Your task to perform on an android device: toggle sleep mode Image 0: 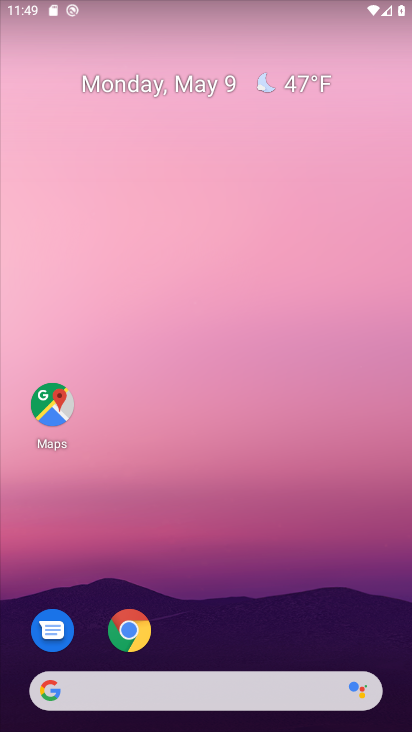
Step 0: drag from (220, 615) to (194, 117)
Your task to perform on an android device: toggle sleep mode Image 1: 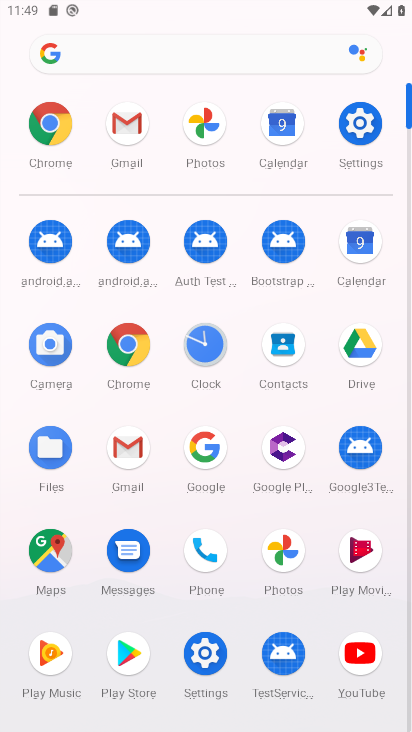
Step 1: click (355, 137)
Your task to perform on an android device: toggle sleep mode Image 2: 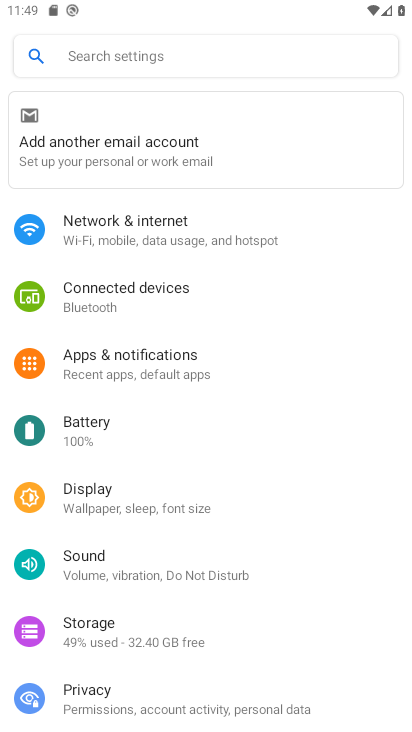
Step 2: click (169, 505)
Your task to perform on an android device: toggle sleep mode Image 3: 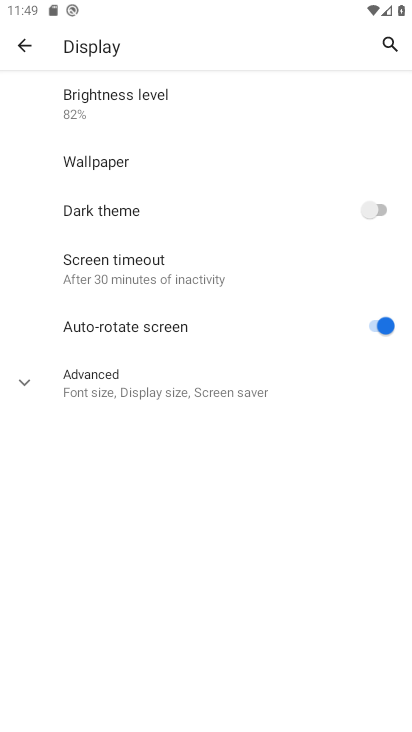
Step 3: click (263, 383)
Your task to perform on an android device: toggle sleep mode Image 4: 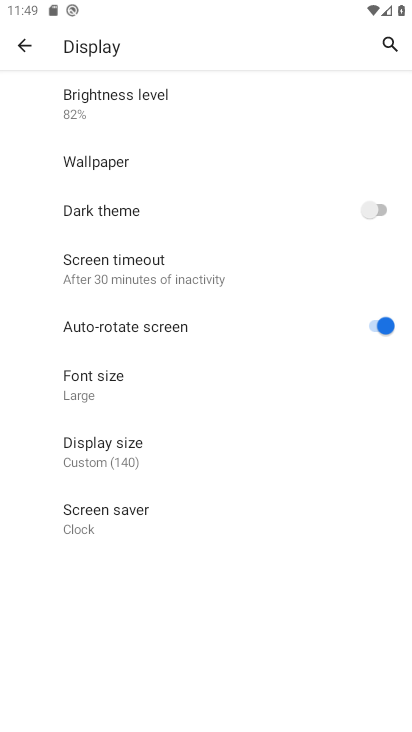
Step 4: task complete